Your task to perform on an android device: turn off location Image 0: 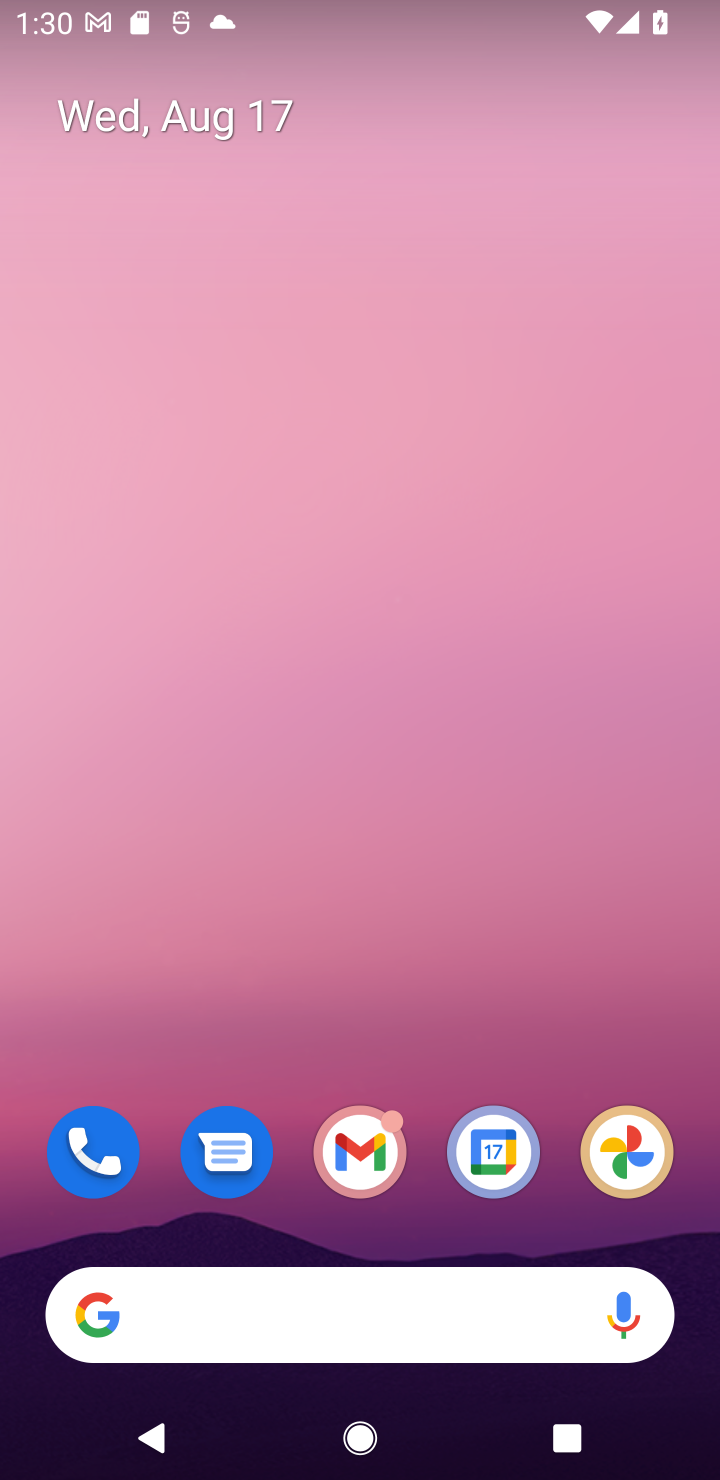
Step 0: drag from (680, 1274) to (374, 107)
Your task to perform on an android device: turn off location Image 1: 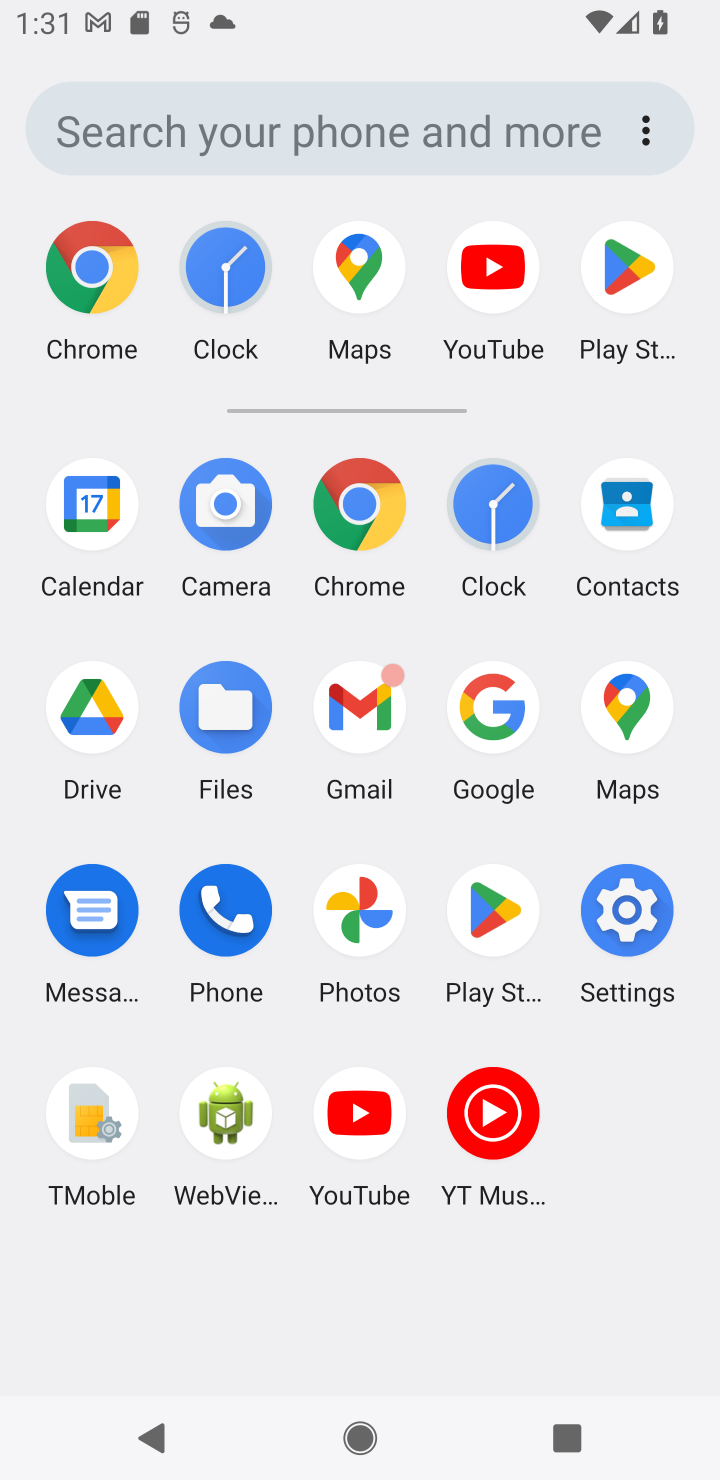
Step 1: click (630, 897)
Your task to perform on an android device: turn off location Image 2: 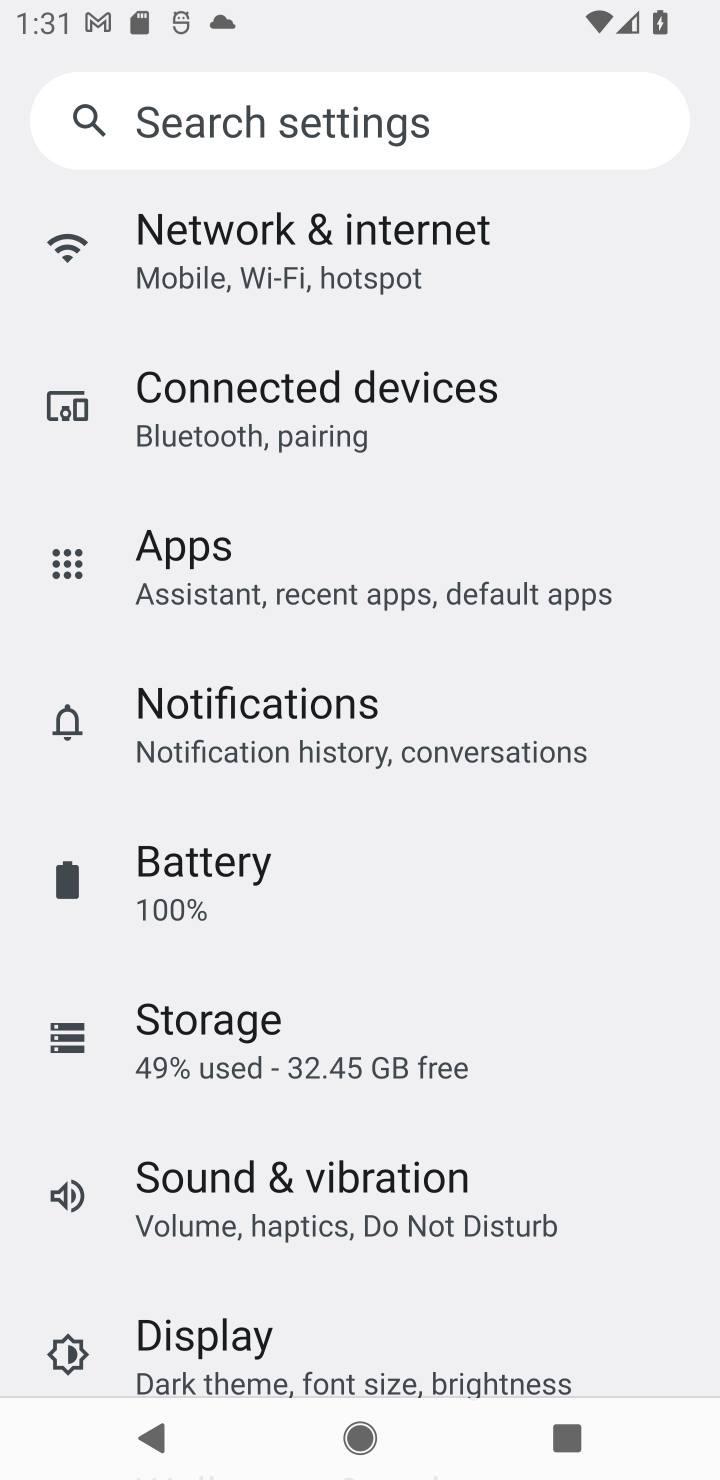
Step 2: drag from (240, 334) to (344, 1163)
Your task to perform on an android device: turn off location Image 3: 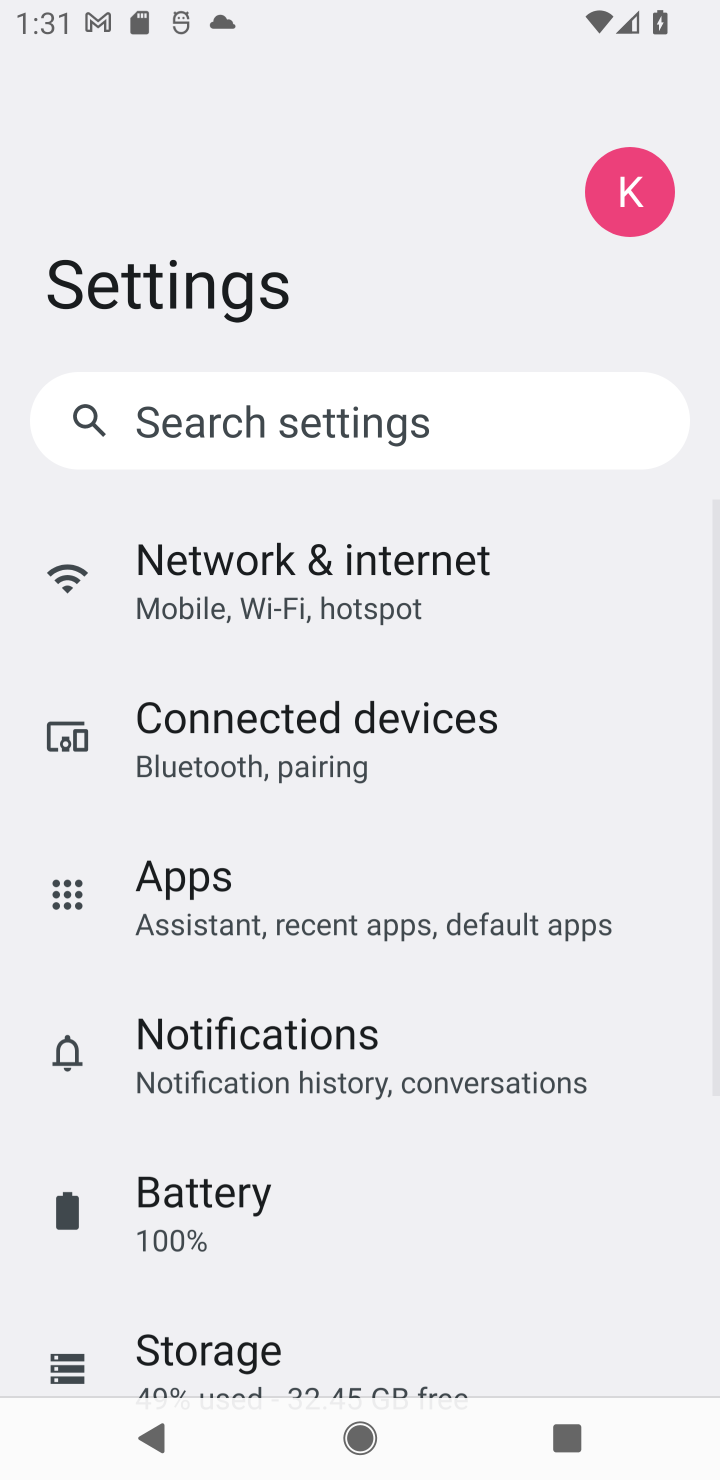
Step 3: drag from (304, 1229) to (144, 23)
Your task to perform on an android device: turn off location Image 4: 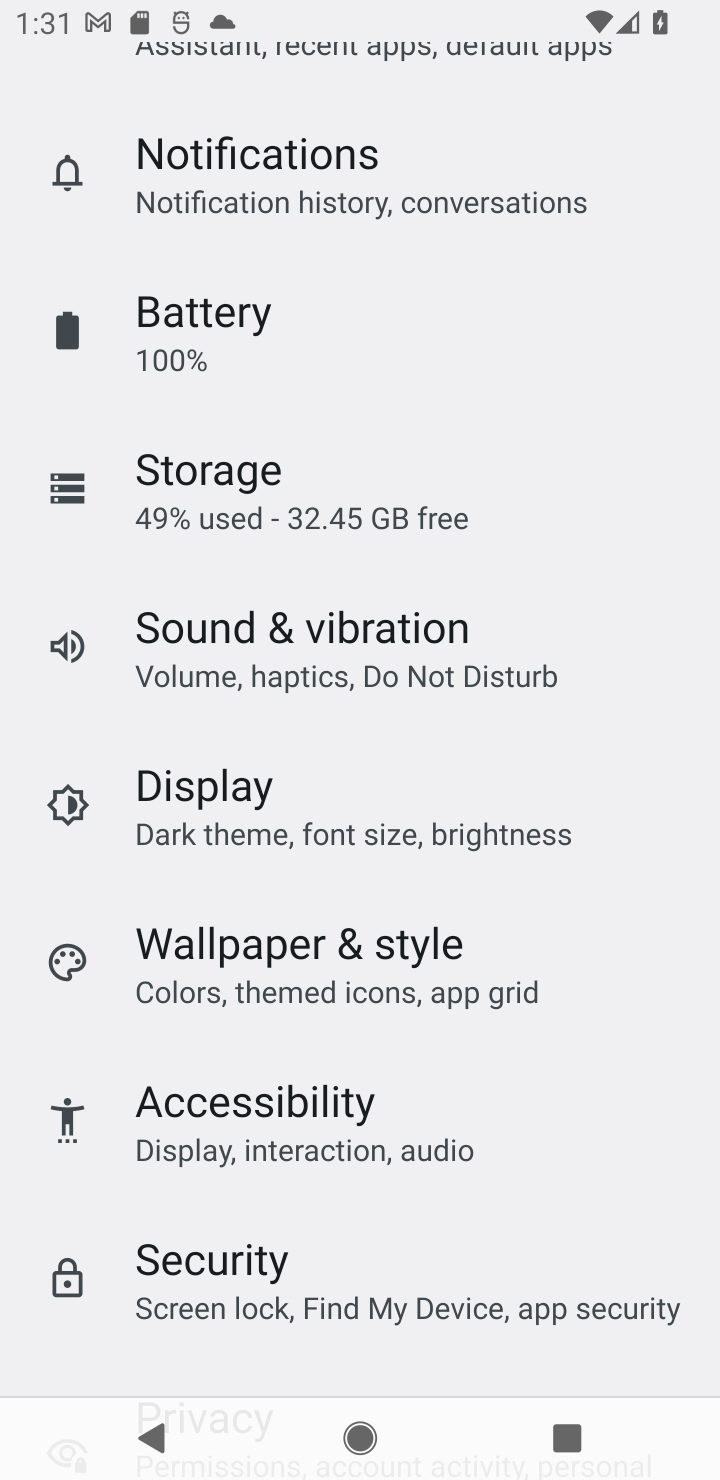
Step 4: drag from (263, 1185) to (235, 55)
Your task to perform on an android device: turn off location Image 5: 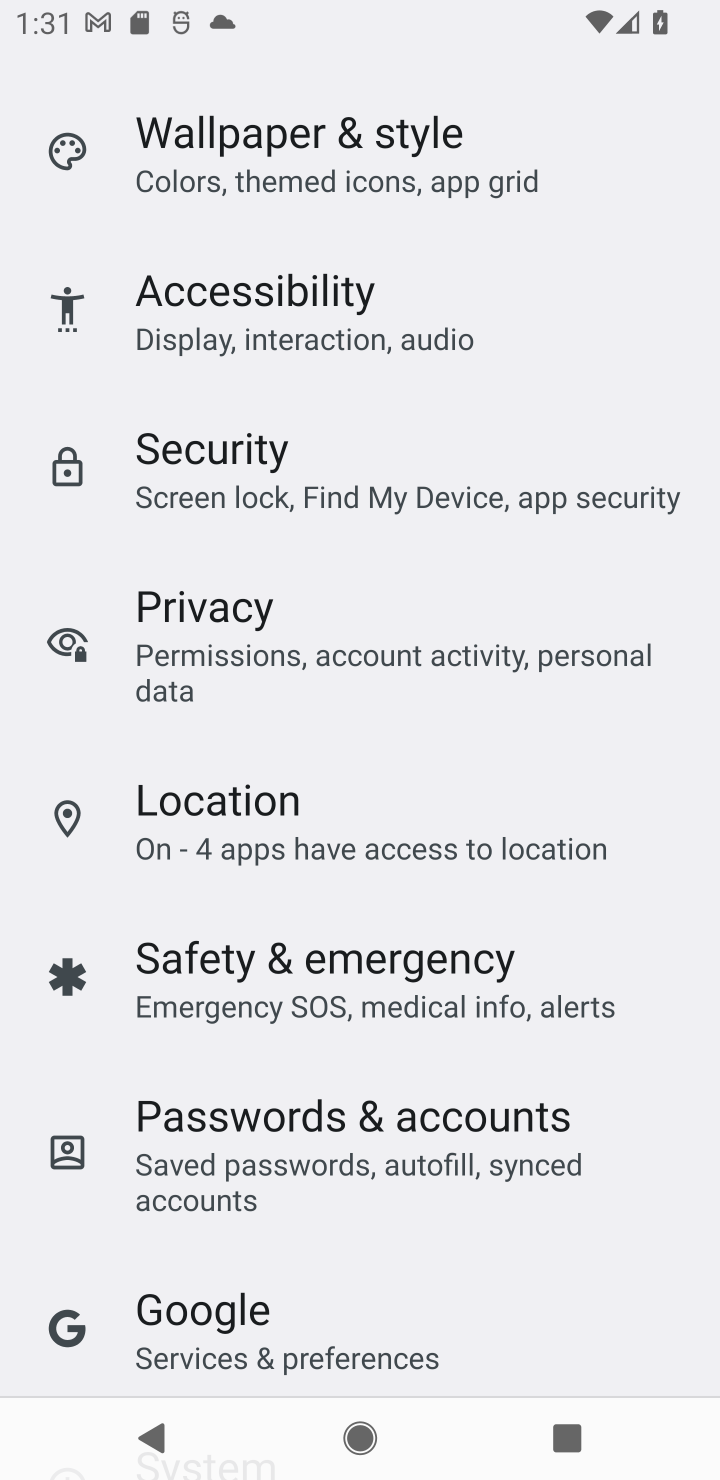
Step 5: click (269, 819)
Your task to perform on an android device: turn off location Image 6: 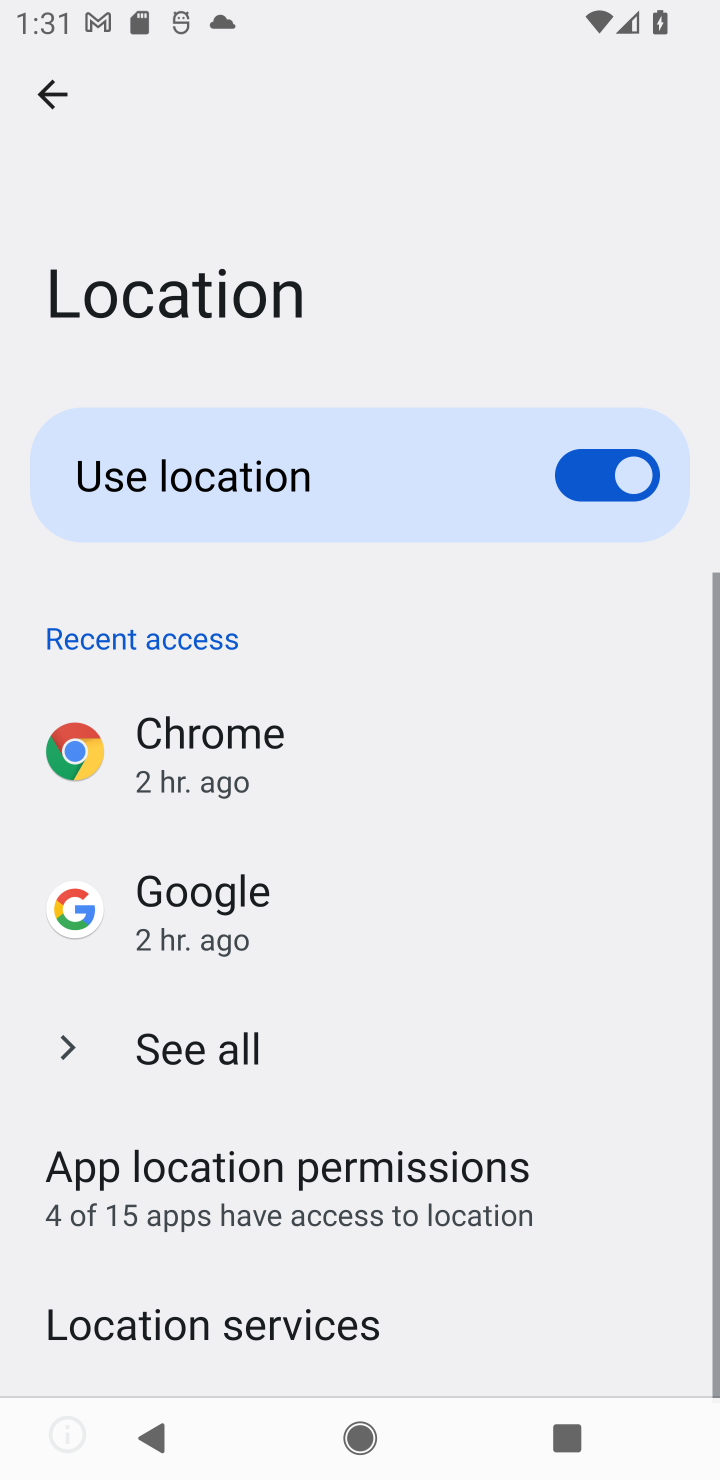
Step 6: click (518, 475)
Your task to perform on an android device: turn off location Image 7: 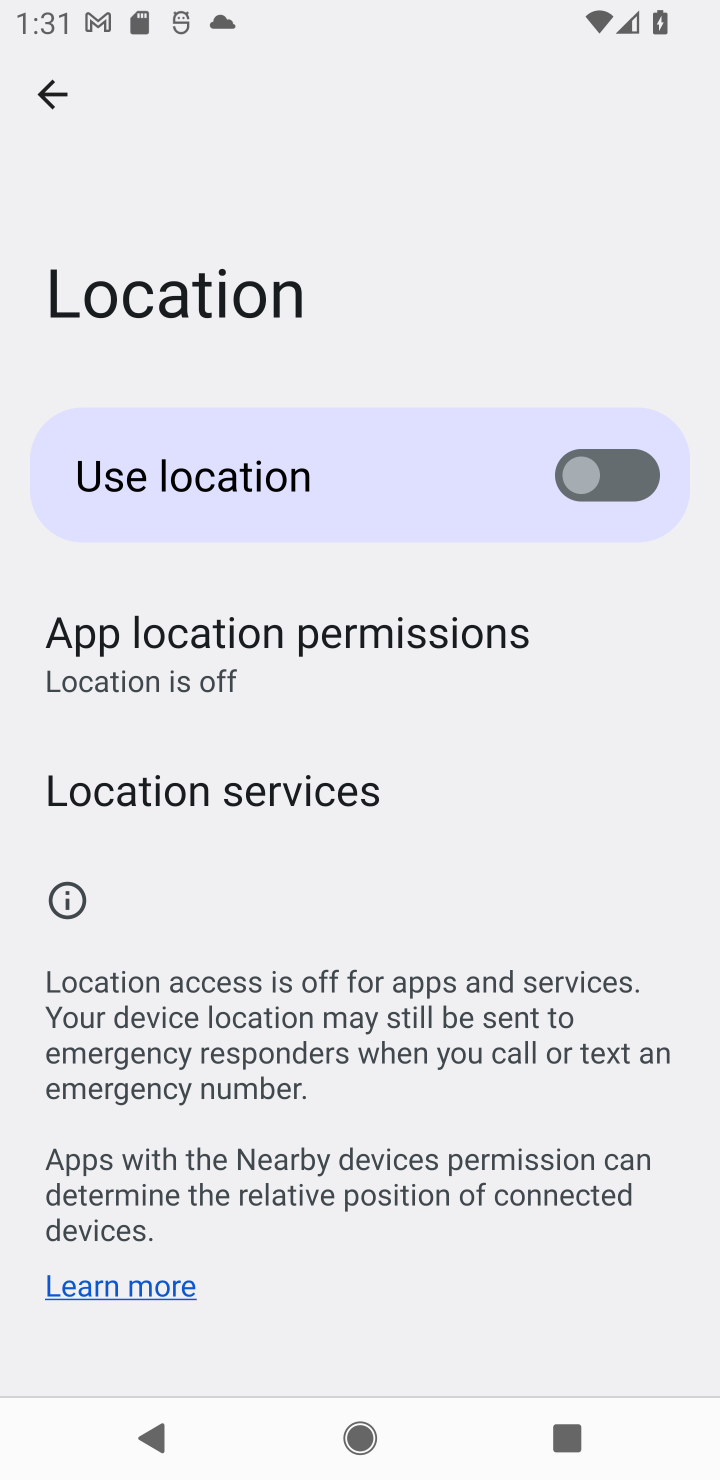
Step 7: task complete